Your task to perform on an android device: Look up the best rated pressure washer on Home Depot. Image 0: 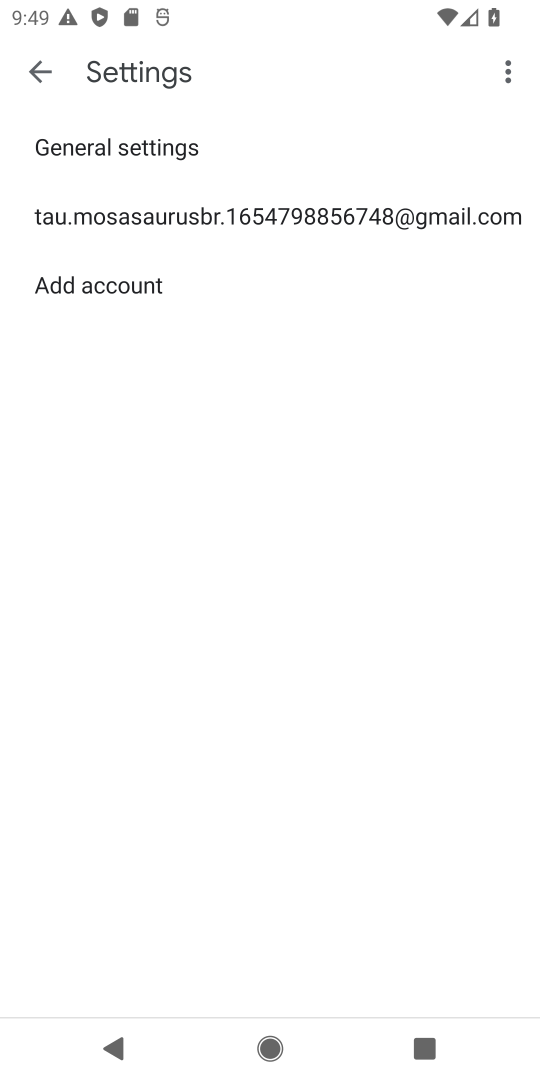
Step 0: press home button
Your task to perform on an android device: Look up the best rated pressure washer on Home Depot. Image 1: 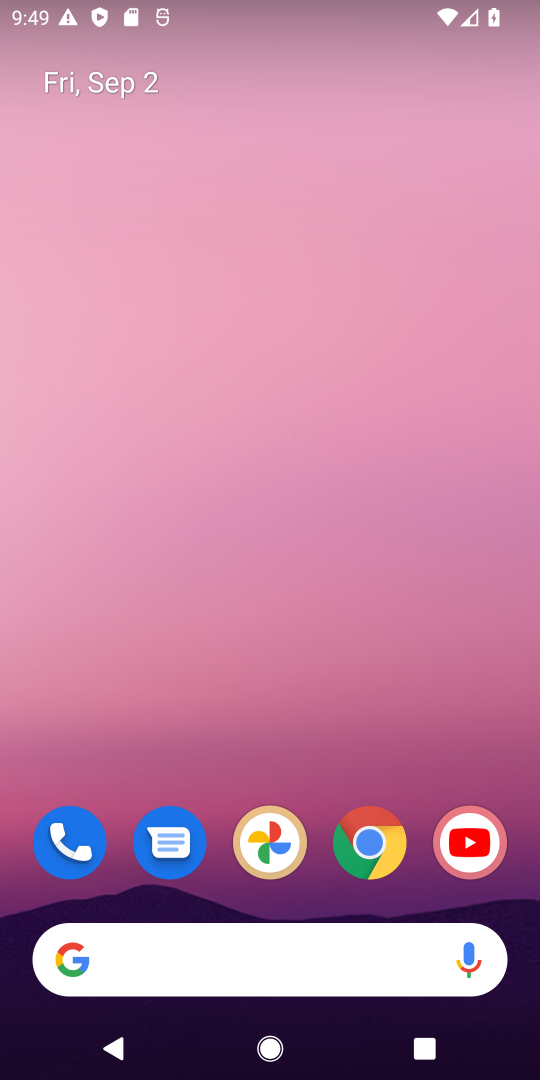
Step 1: drag from (218, 799) to (212, 125)
Your task to perform on an android device: Look up the best rated pressure washer on Home Depot. Image 2: 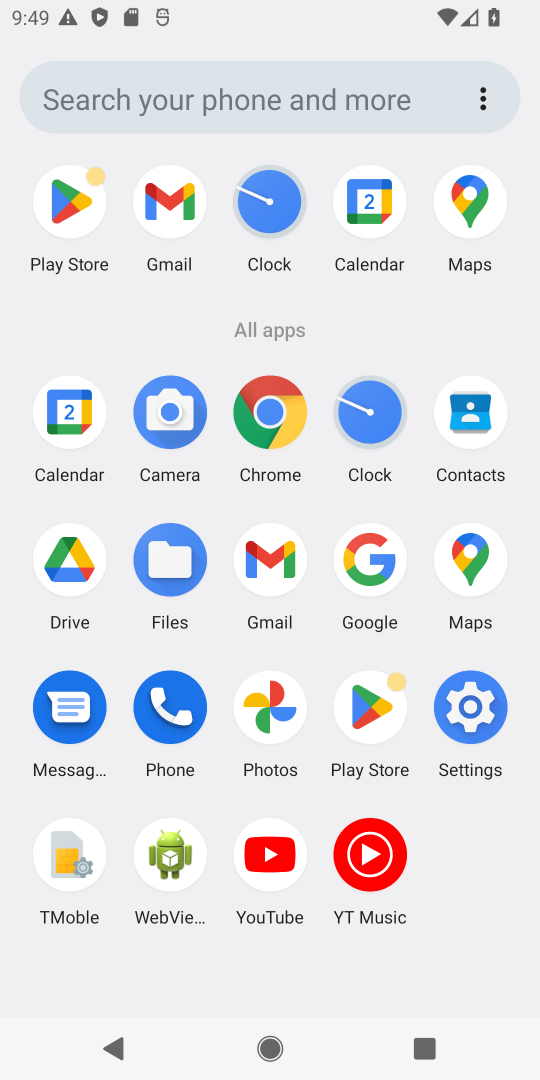
Step 2: click (266, 432)
Your task to perform on an android device: Look up the best rated pressure washer on Home Depot. Image 3: 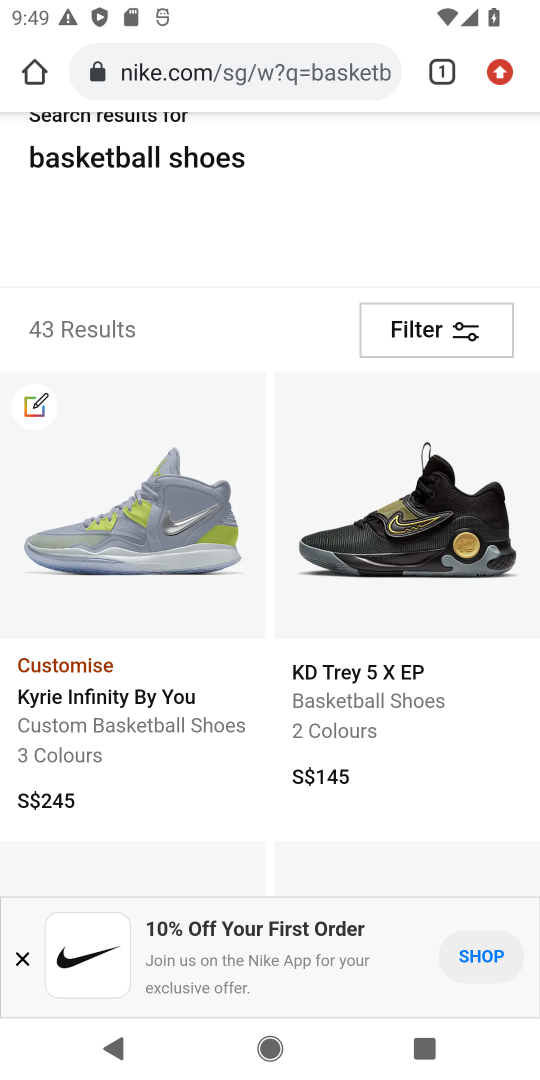
Step 3: click (196, 78)
Your task to perform on an android device: Look up the best rated pressure washer on Home Depot. Image 4: 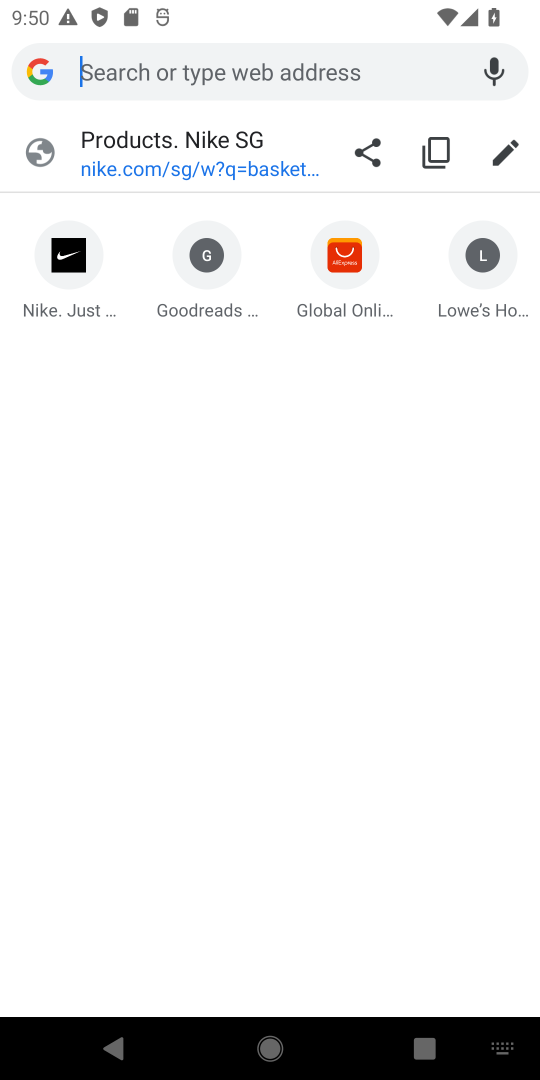
Step 4: type "Home Depot."
Your task to perform on an android device: Look up the best rated pressure washer on Home Depot. Image 5: 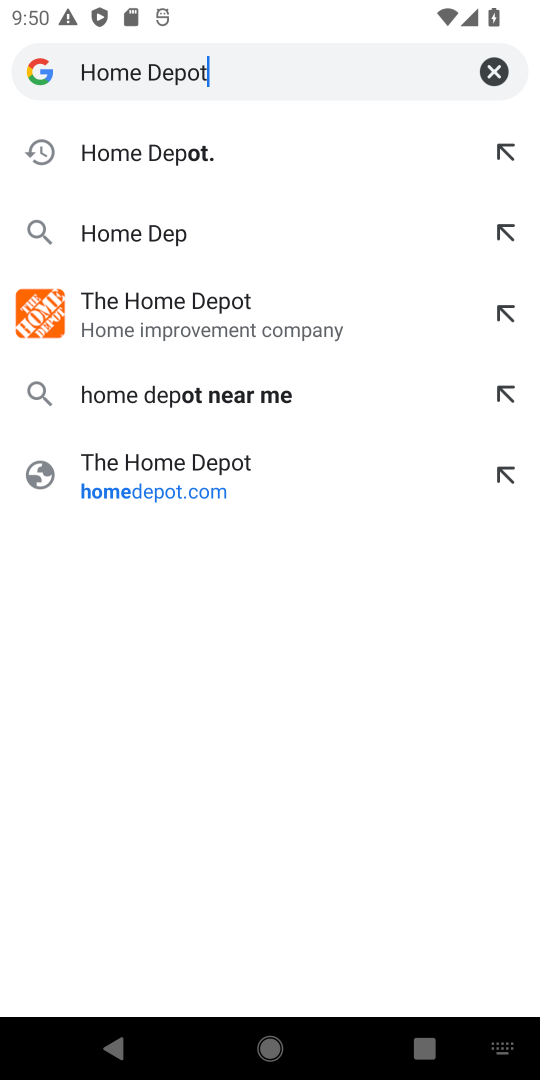
Step 5: press enter
Your task to perform on an android device: Look up the best rated pressure washer on Home Depot. Image 6: 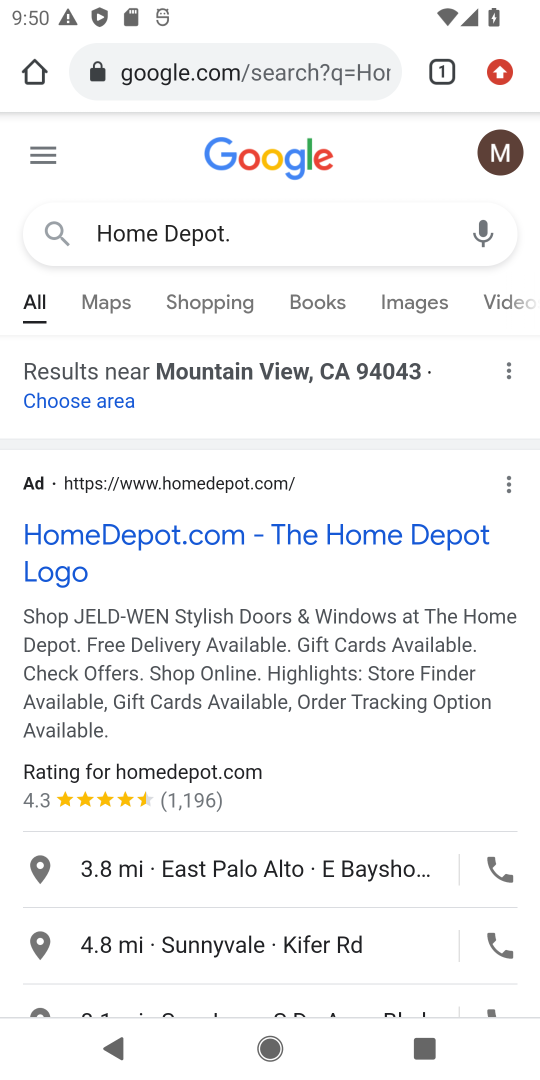
Step 6: click (249, 312)
Your task to perform on an android device: Look up the best rated pressure washer on Home Depot. Image 7: 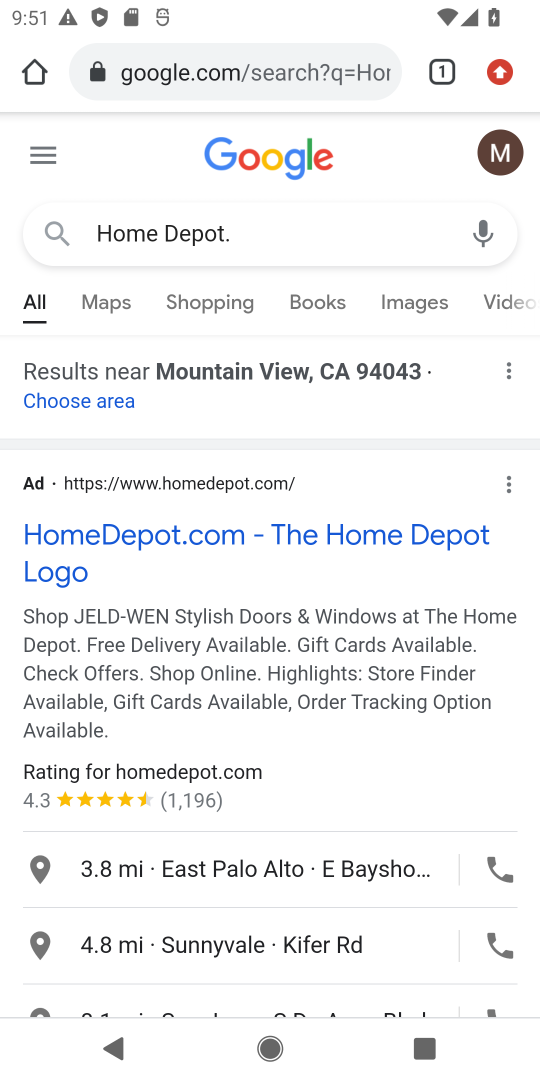
Step 7: click (333, 286)
Your task to perform on an android device: Look up the best rated pressure washer on Home Depot. Image 8: 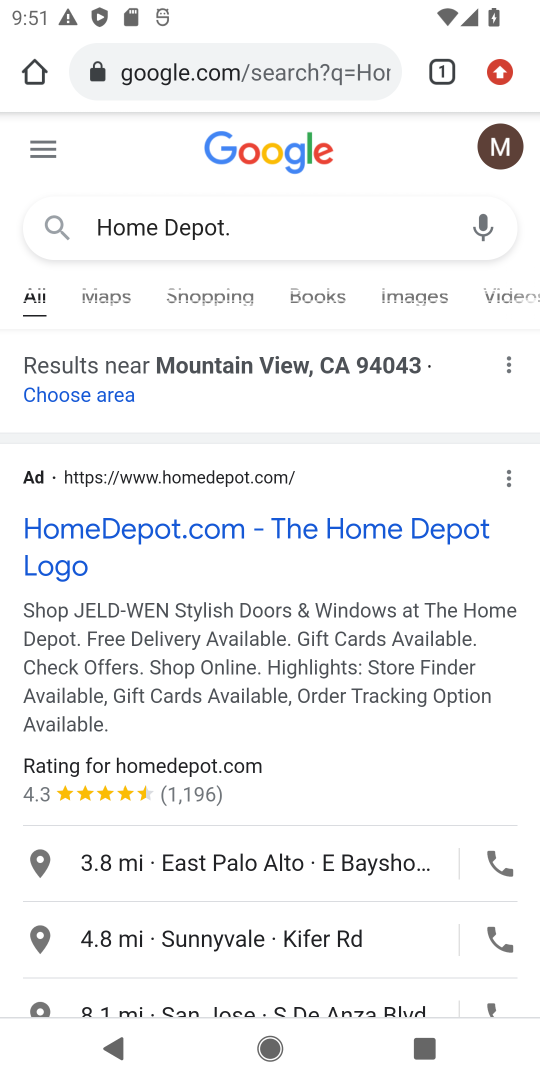
Step 8: drag from (262, 727) to (338, 340)
Your task to perform on an android device: Look up the best rated pressure washer on Home Depot. Image 9: 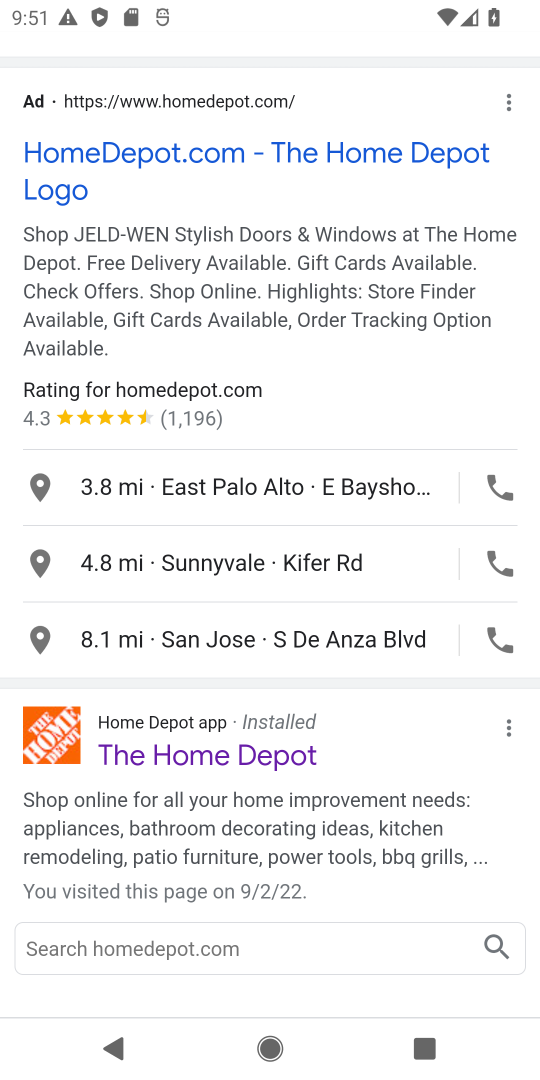
Step 9: click (229, 778)
Your task to perform on an android device: Look up the best rated pressure washer on Home Depot. Image 10: 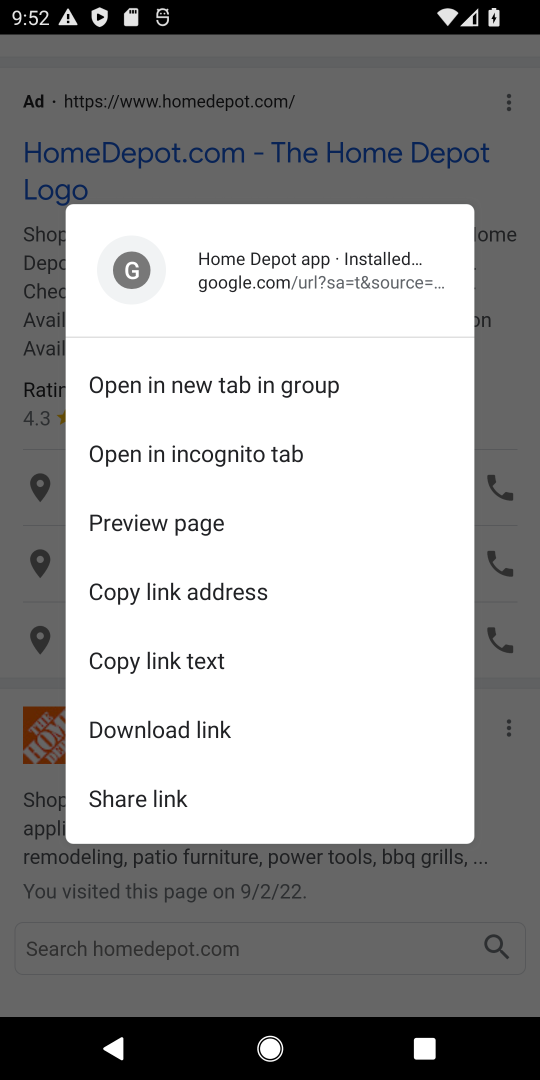
Step 10: press back button
Your task to perform on an android device: Look up the best rated pressure washer on Home Depot. Image 11: 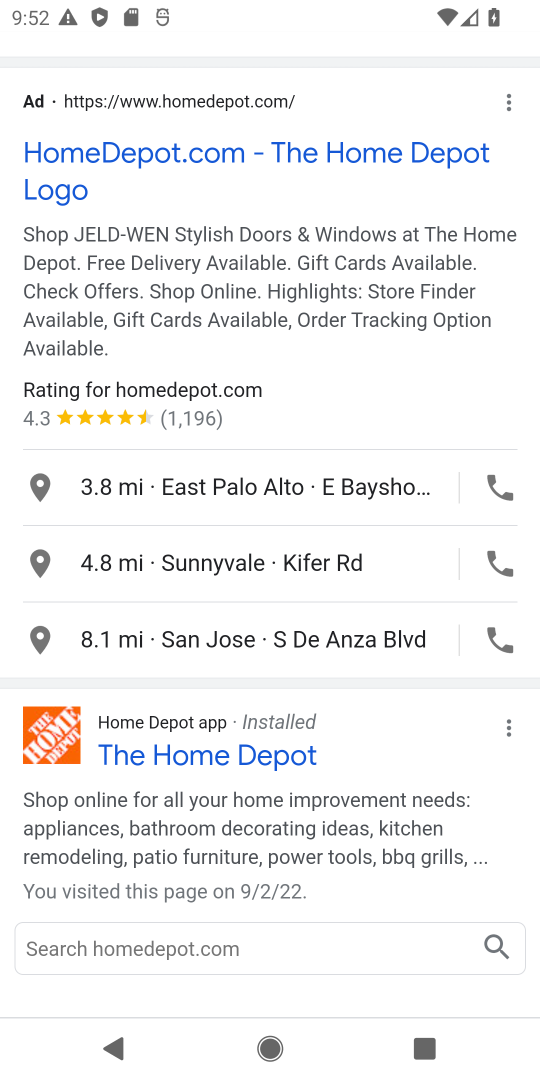
Step 11: click (139, 752)
Your task to perform on an android device: Look up the best rated pressure washer on Home Depot. Image 12: 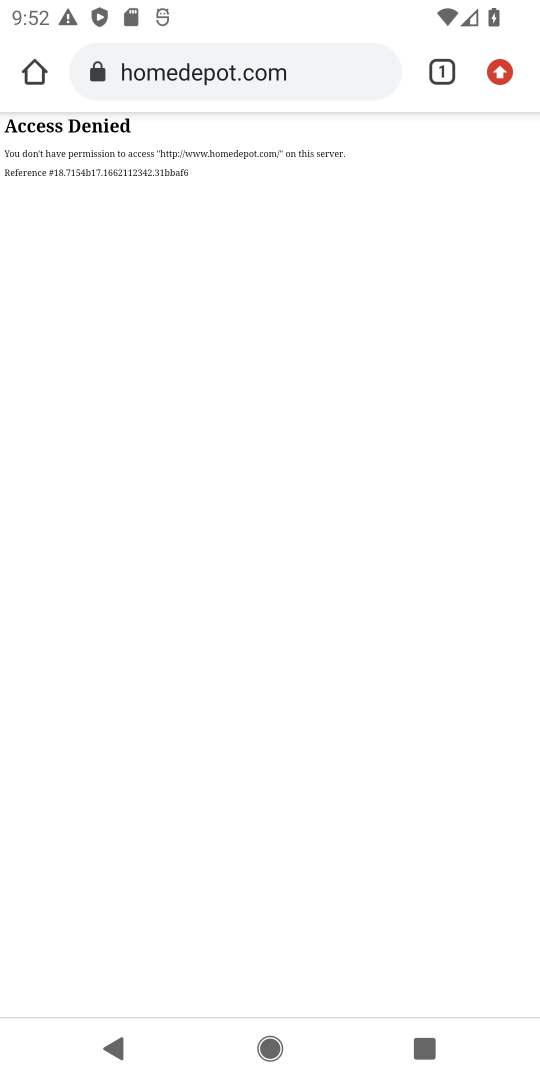
Step 12: task complete